Your task to perform on an android device: open app "Nova Launcher" (install if not already installed), go to login, and select forgot password Image 0: 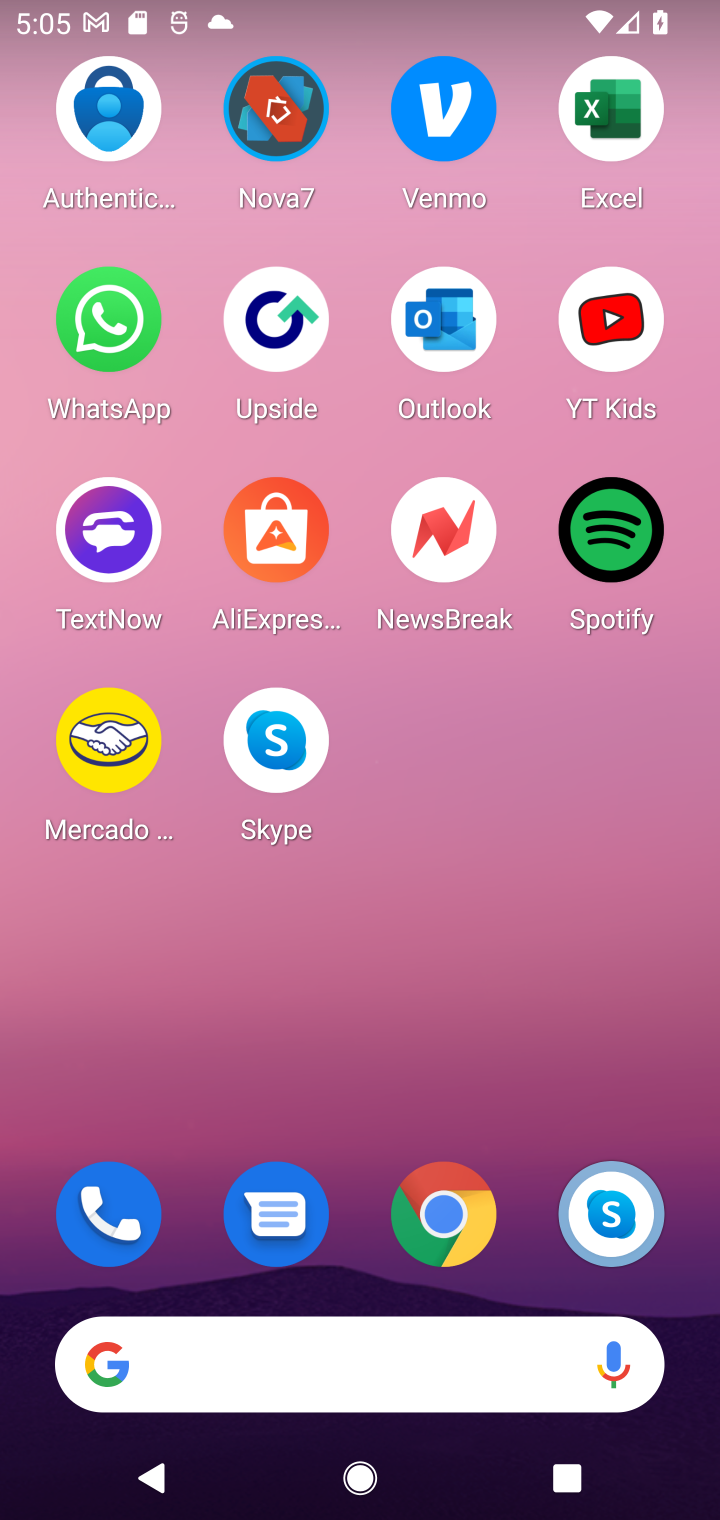
Step 0: drag from (342, 1264) to (463, 0)
Your task to perform on an android device: open app "Nova Launcher" (install if not already installed), go to login, and select forgot password Image 1: 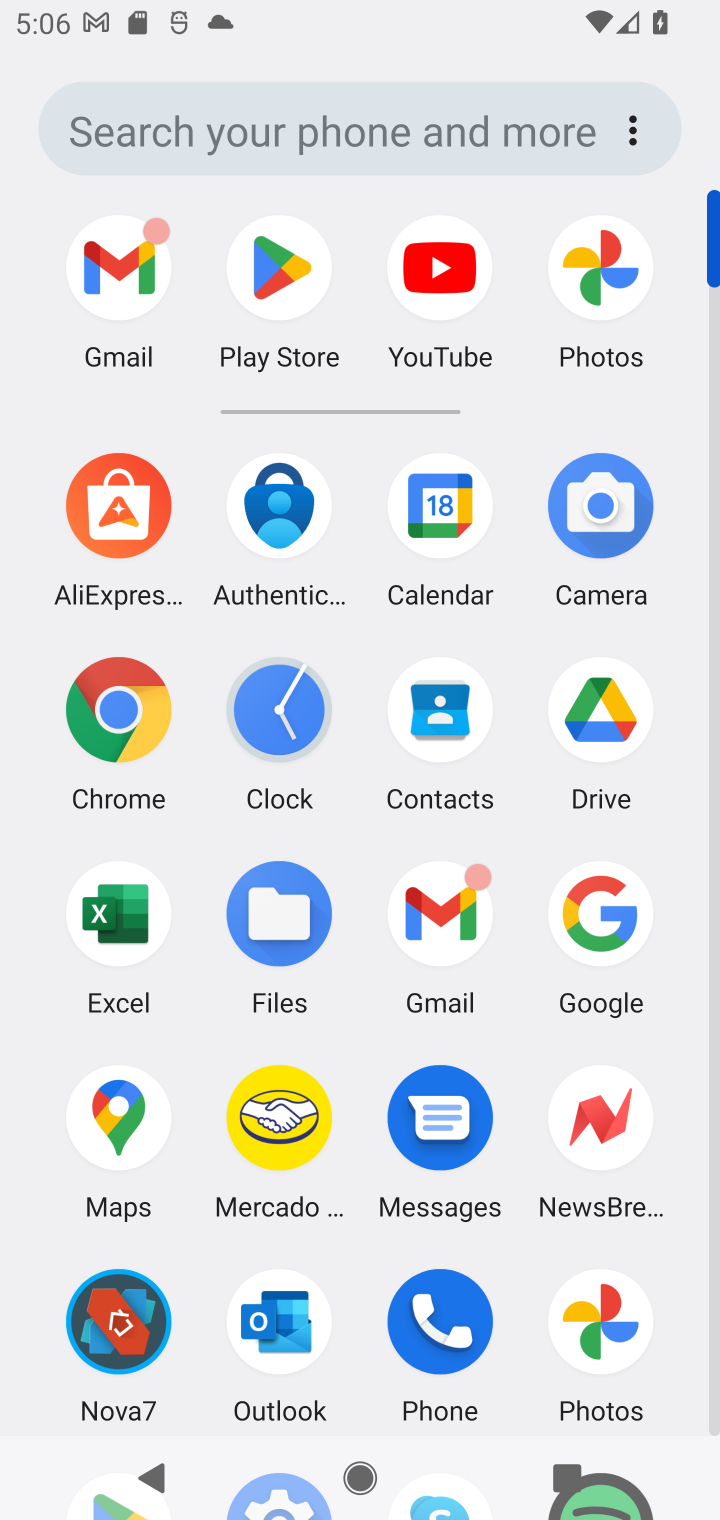
Step 1: click (277, 267)
Your task to perform on an android device: open app "Nova Launcher" (install if not already installed), go to login, and select forgot password Image 2: 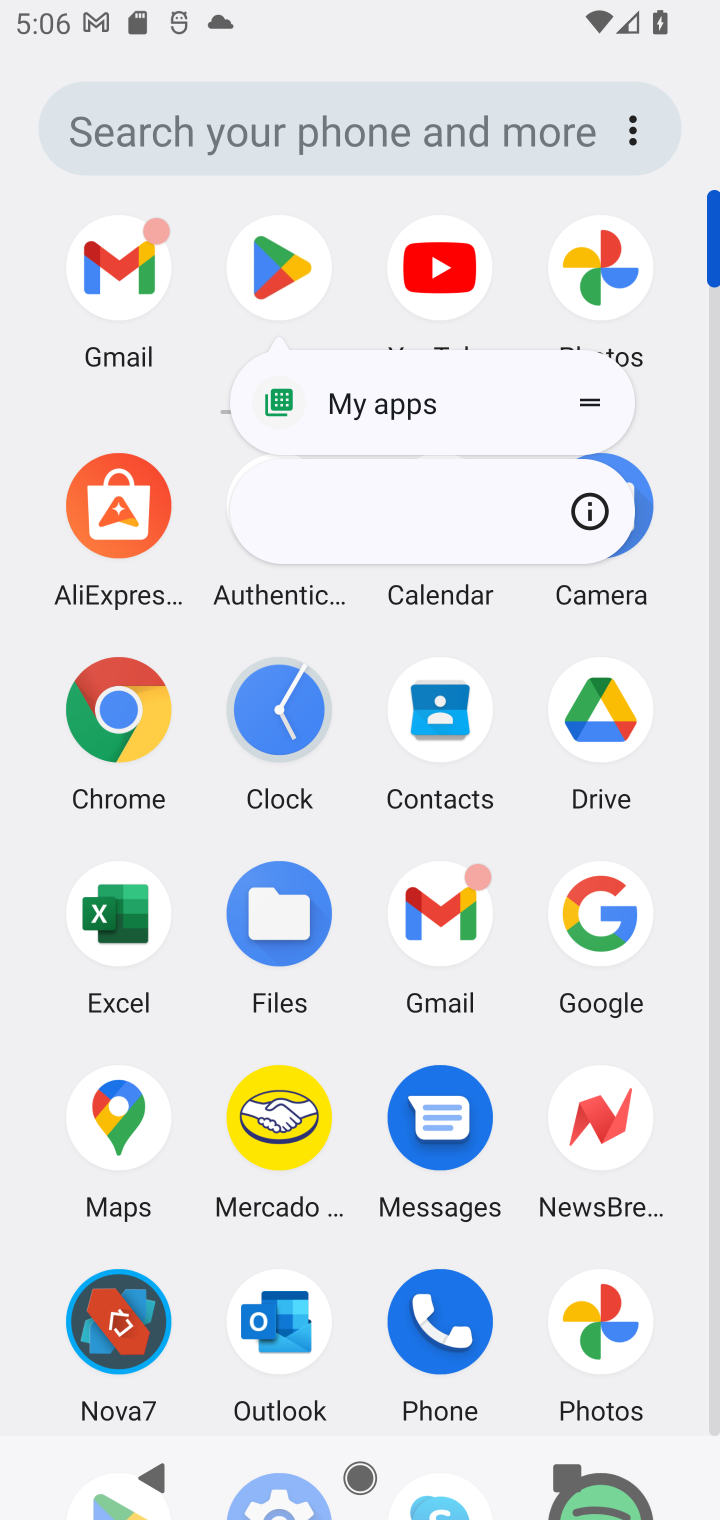
Step 2: click (277, 267)
Your task to perform on an android device: open app "Nova Launcher" (install if not already installed), go to login, and select forgot password Image 3: 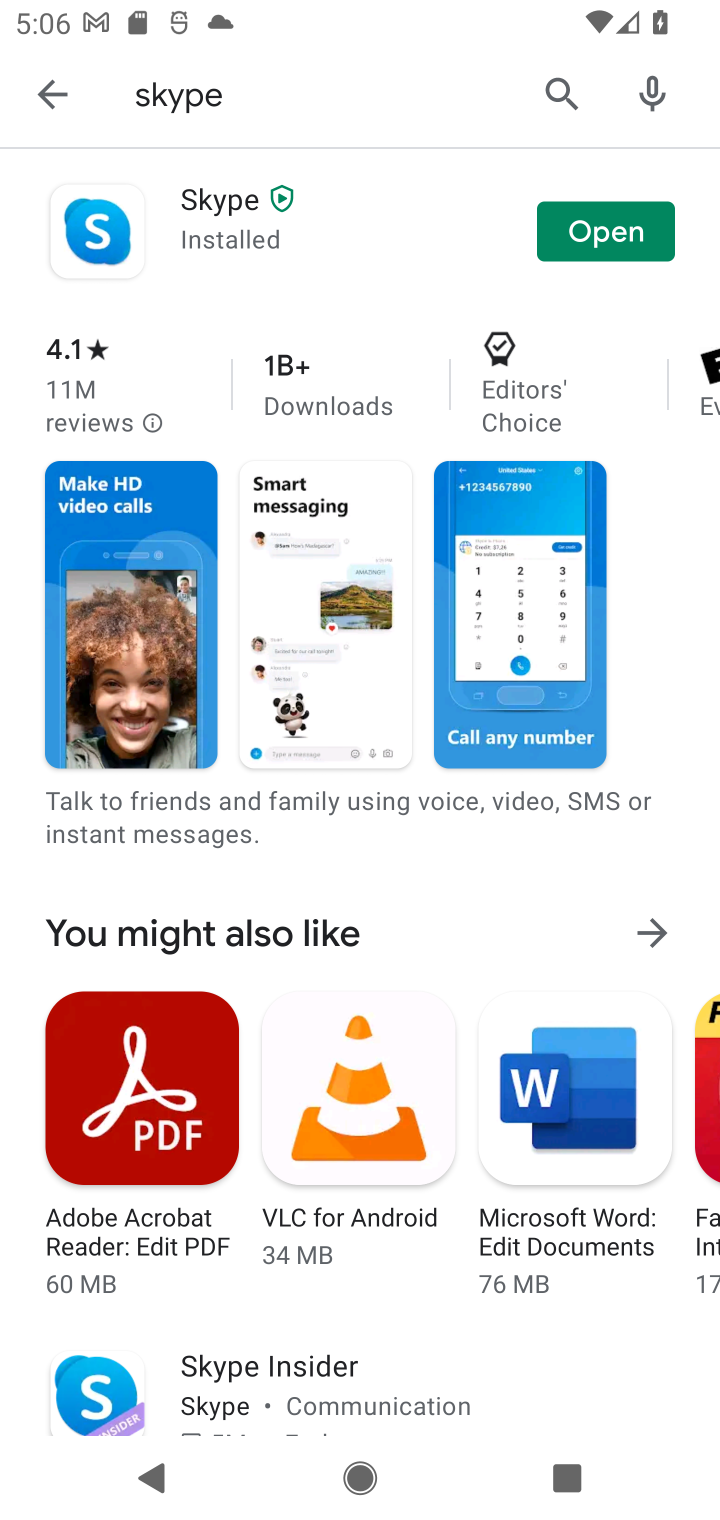
Step 3: click (280, 92)
Your task to perform on an android device: open app "Nova Launcher" (install if not already installed), go to login, and select forgot password Image 4: 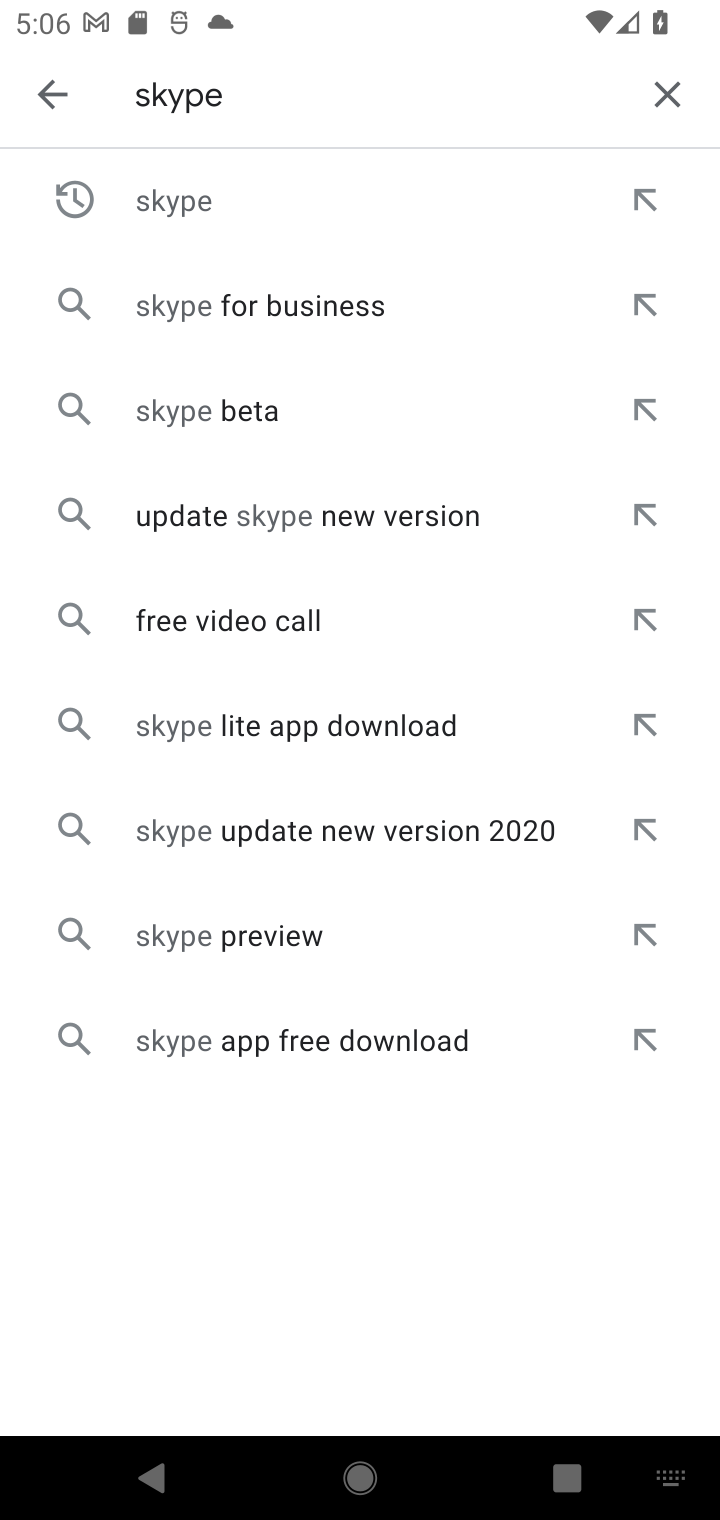
Step 4: click (659, 91)
Your task to perform on an android device: open app "Nova Launcher" (install if not already installed), go to login, and select forgot password Image 5: 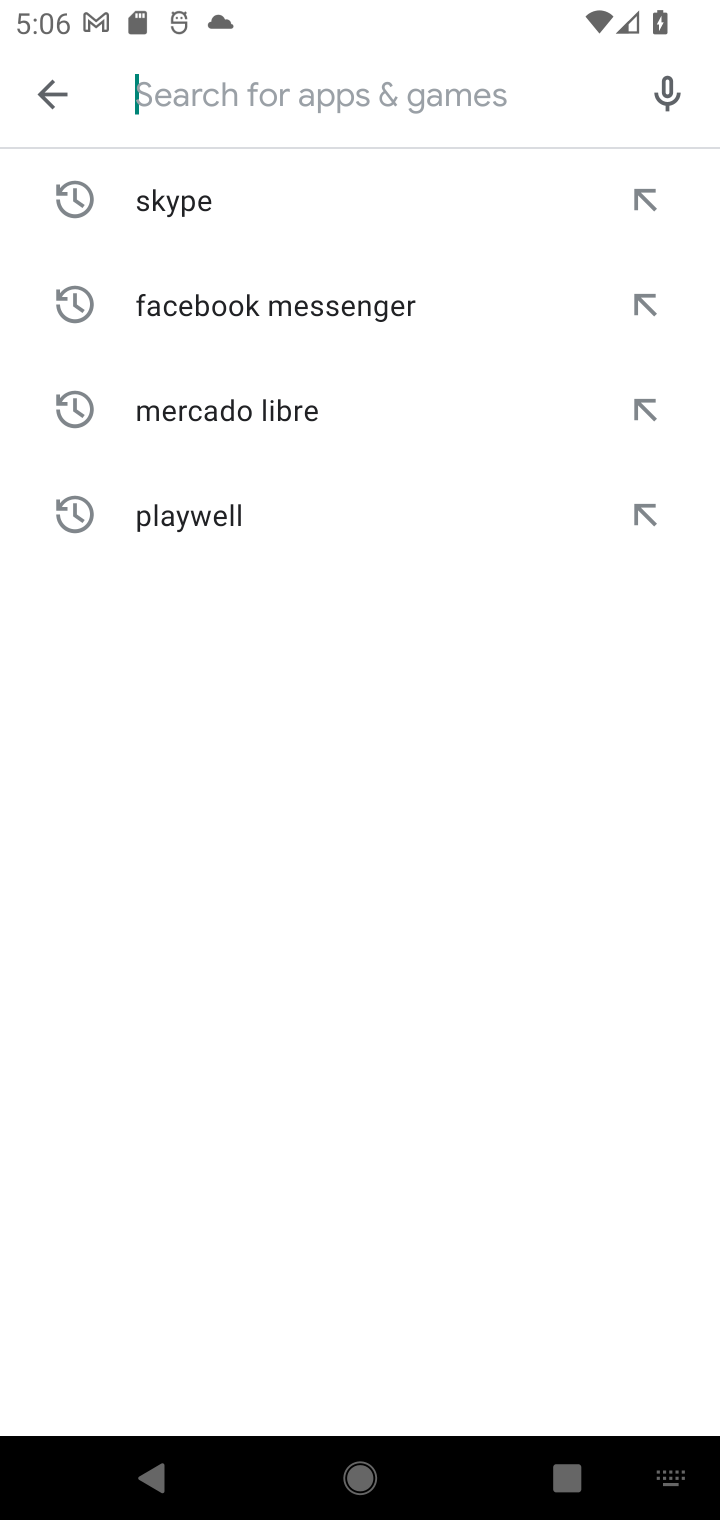
Step 5: type "Nova launcher"
Your task to perform on an android device: open app "Nova Launcher" (install if not already installed), go to login, and select forgot password Image 6: 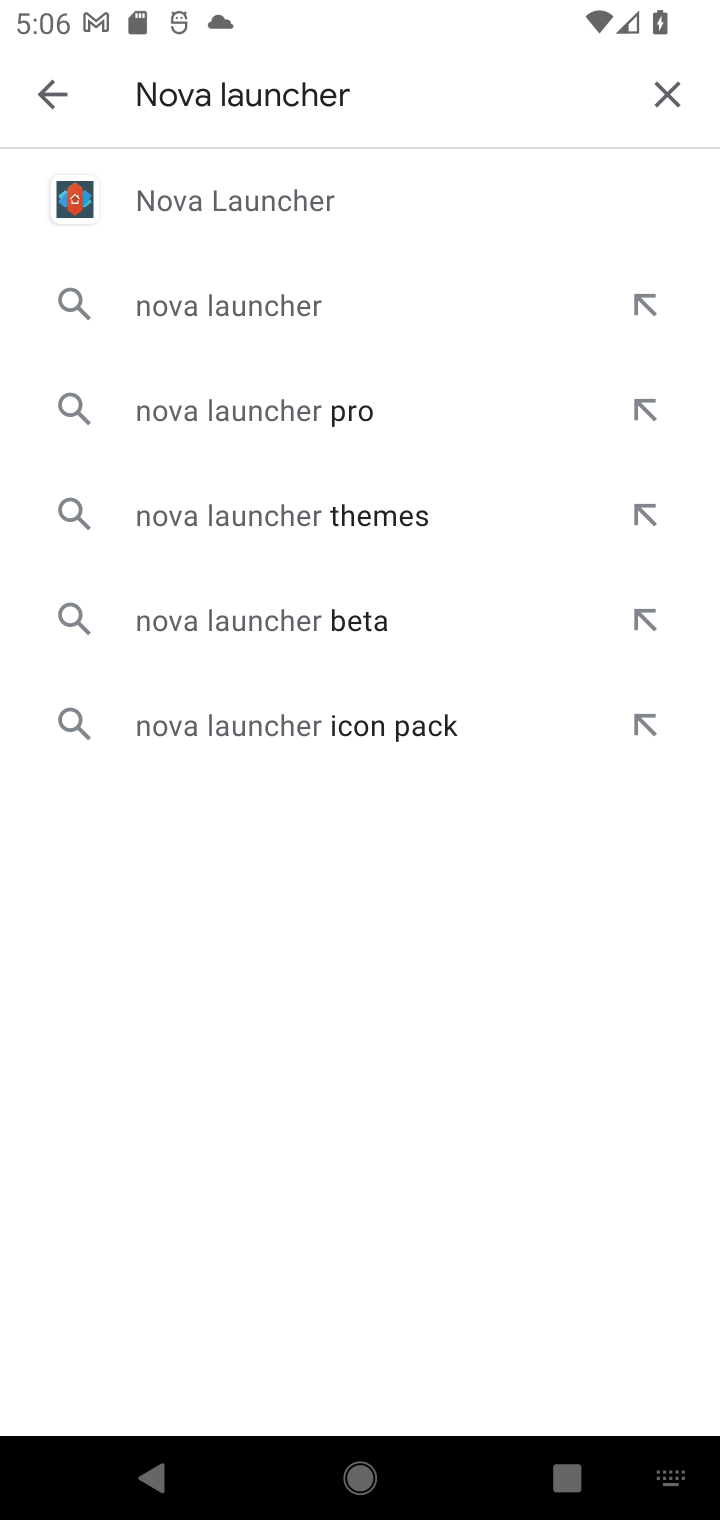
Step 6: click (308, 211)
Your task to perform on an android device: open app "Nova Launcher" (install if not already installed), go to login, and select forgot password Image 7: 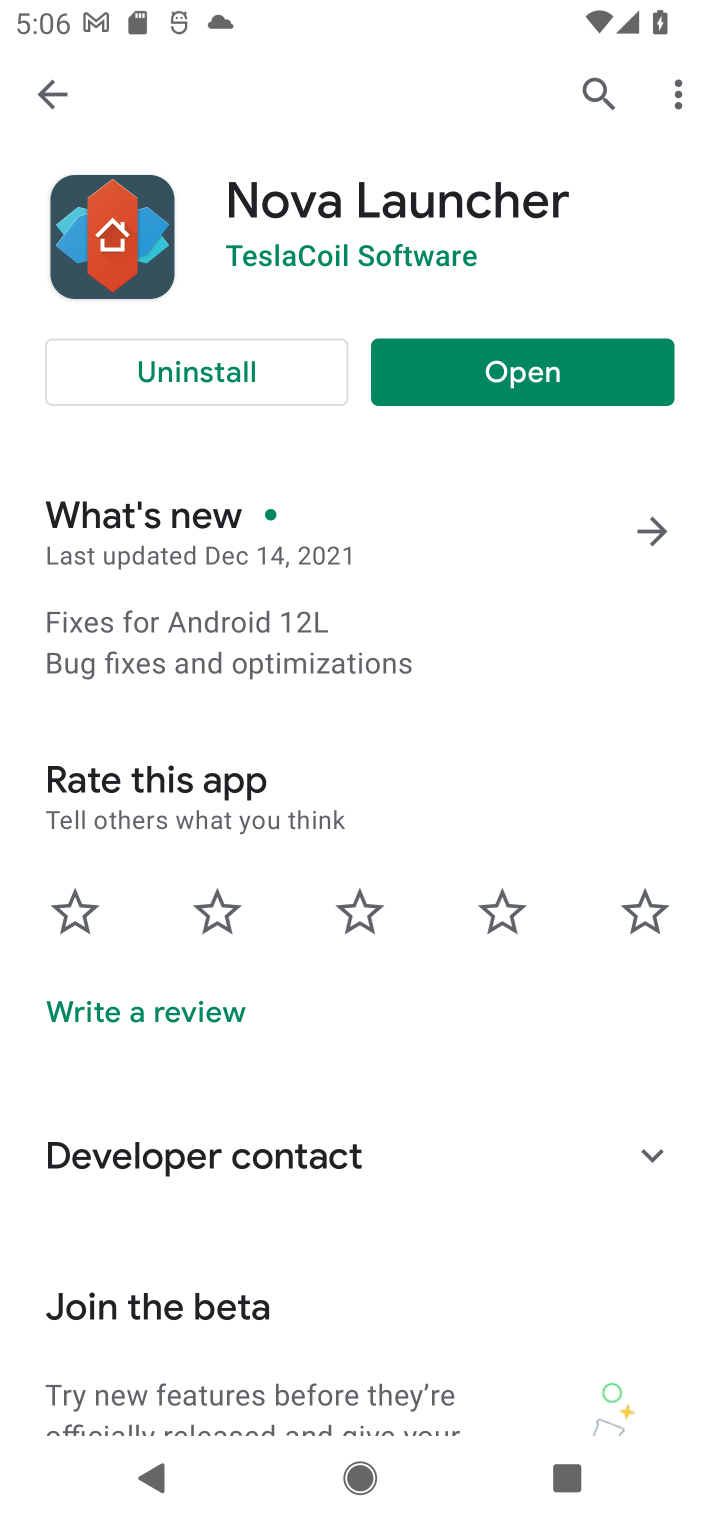
Step 7: click (525, 376)
Your task to perform on an android device: open app "Nova Launcher" (install if not already installed), go to login, and select forgot password Image 8: 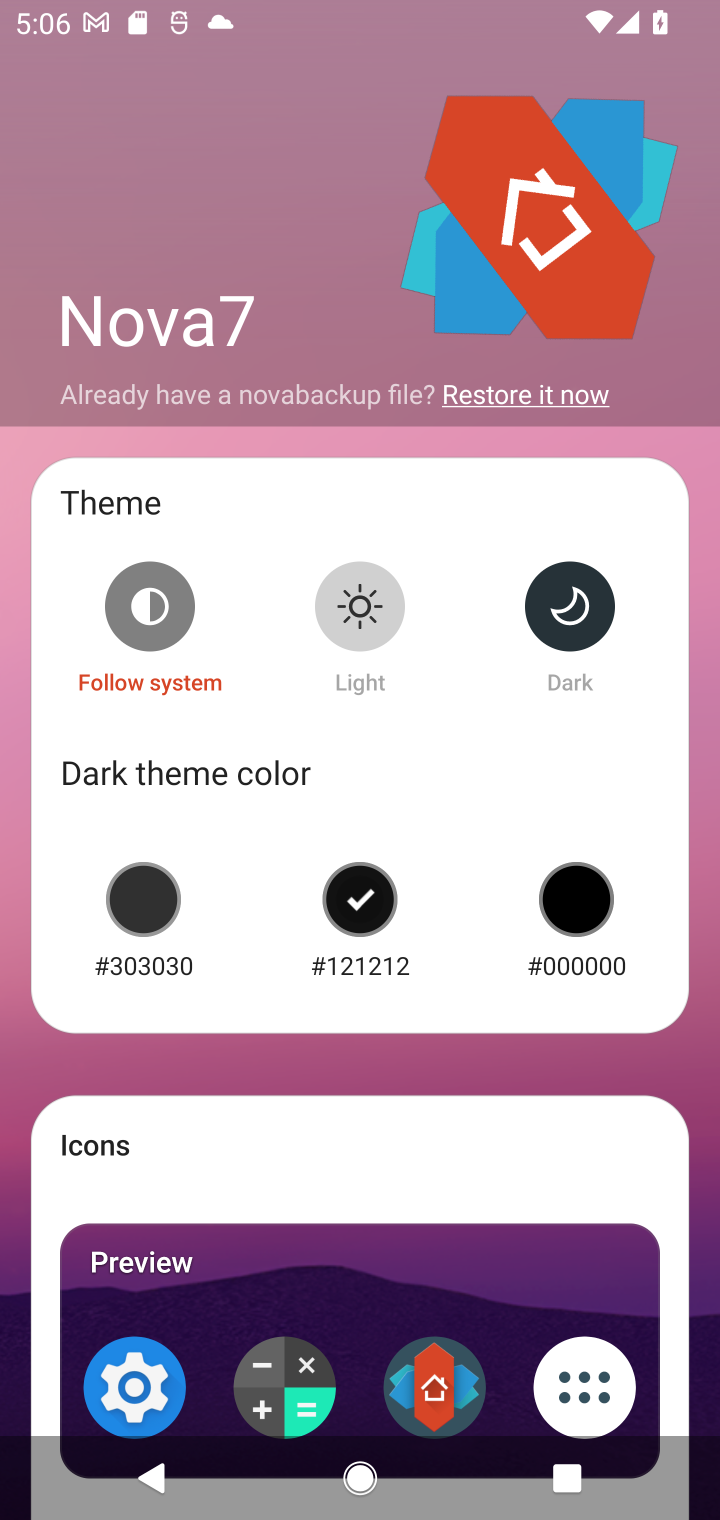
Step 8: task complete